Your task to perform on an android device: Open my contact list Image 0: 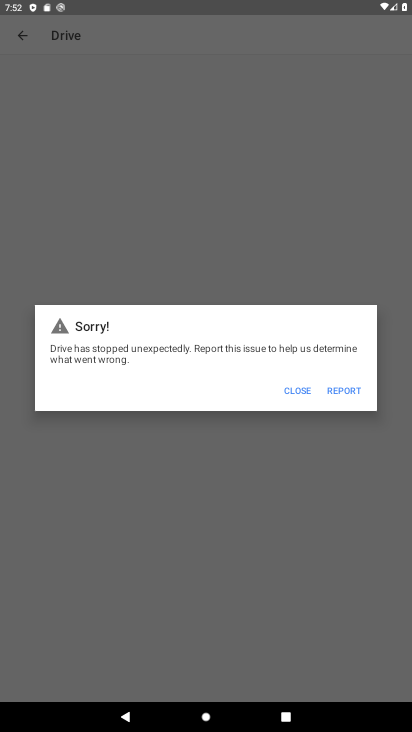
Step 0: press home button
Your task to perform on an android device: Open my contact list Image 1: 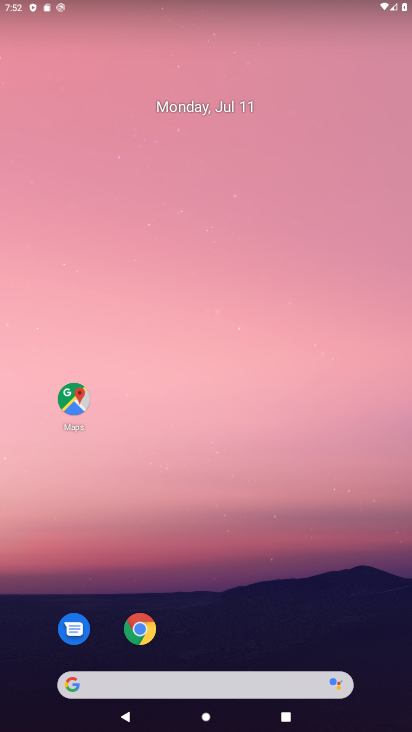
Step 1: drag from (206, 658) to (177, 142)
Your task to perform on an android device: Open my contact list Image 2: 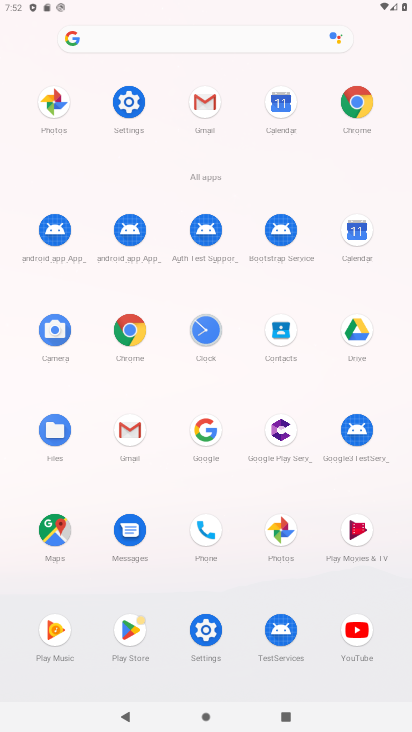
Step 2: click (193, 530)
Your task to perform on an android device: Open my contact list Image 3: 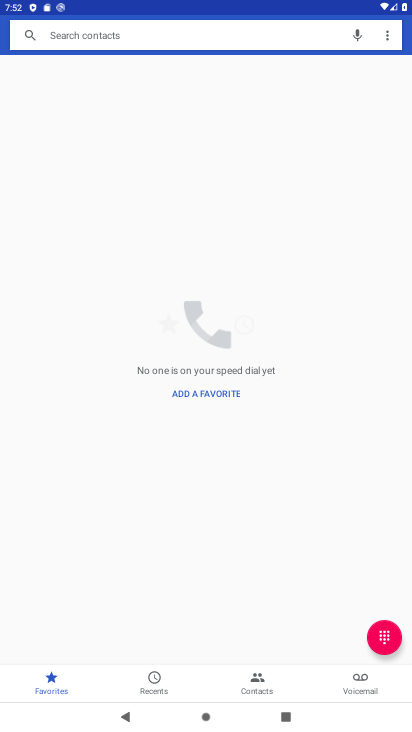
Step 3: click (266, 679)
Your task to perform on an android device: Open my contact list Image 4: 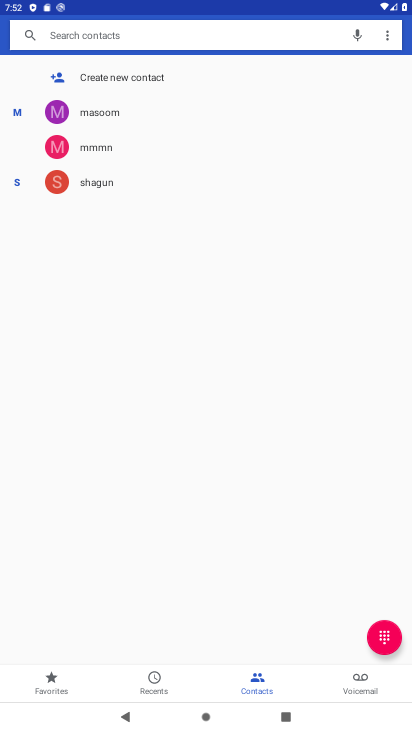
Step 4: task complete